Your task to perform on an android device: open a bookmark in the chrome app Image 0: 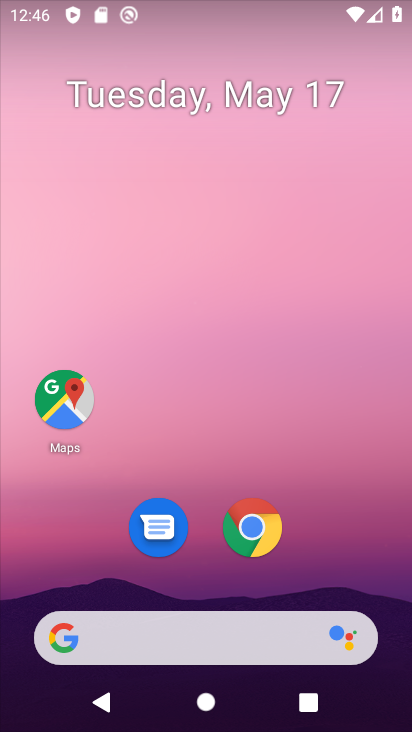
Step 0: click (258, 529)
Your task to perform on an android device: open a bookmark in the chrome app Image 1: 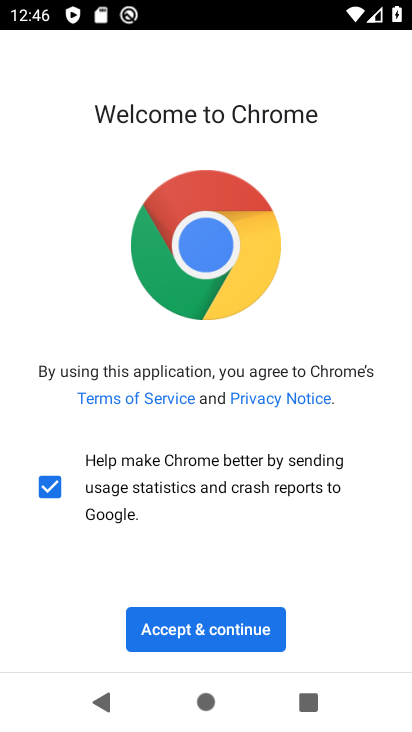
Step 1: click (259, 635)
Your task to perform on an android device: open a bookmark in the chrome app Image 2: 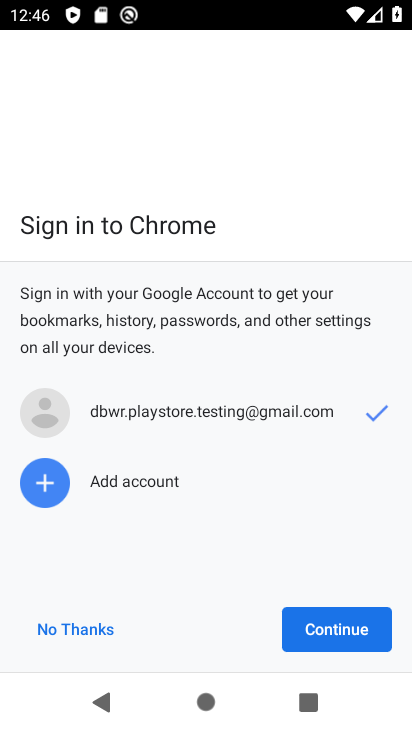
Step 2: click (335, 635)
Your task to perform on an android device: open a bookmark in the chrome app Image 3: 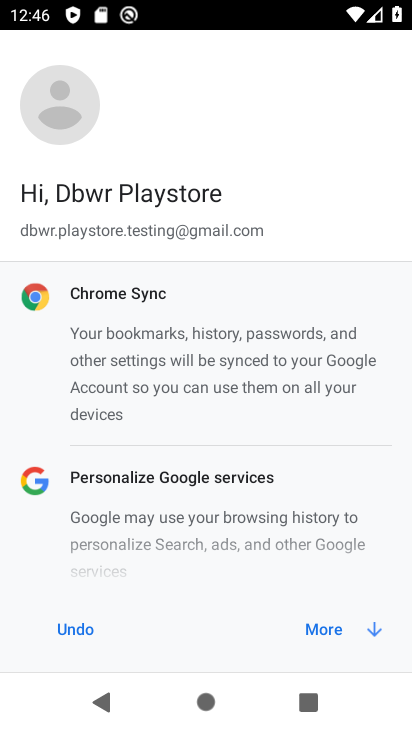
Step 3: click (334, 640)
Your task to perform on an android device: open a bookmark in the chrome app Image 4: 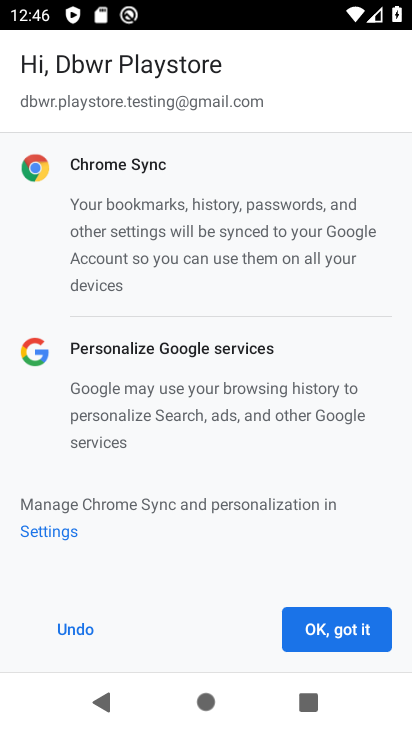
Step 4: click (335, 641)
Your task to perform on an android device: open a bookmark in the chrome app Image 5: 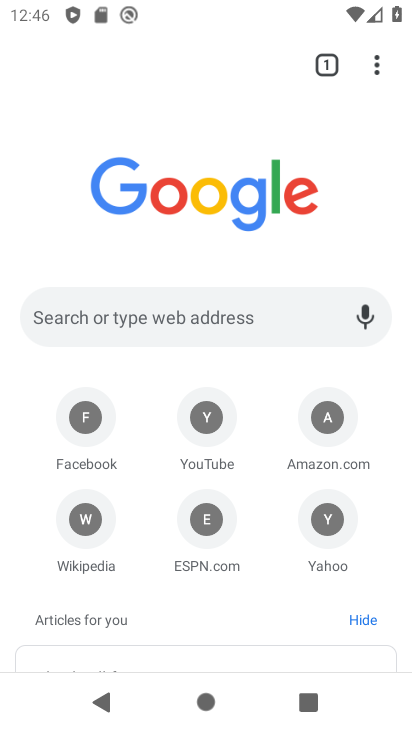
Step 5: task complete